Your task to perform on an android device: View the shopping cart on costco.com. Image 0: 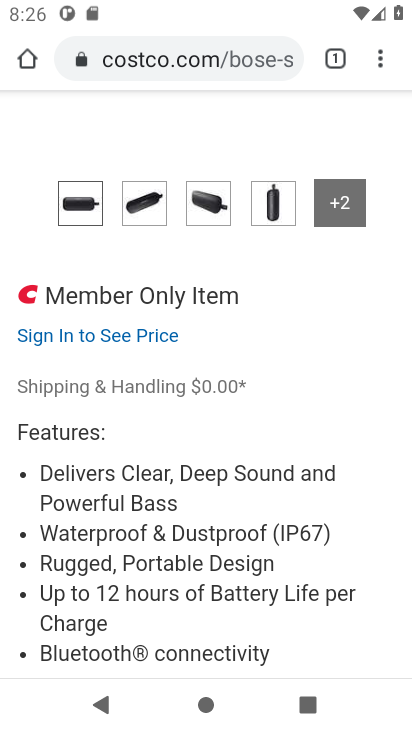
Step 0: press home button
Your task to perform on an android device: View the shopping cart on costco.com. Image 1: 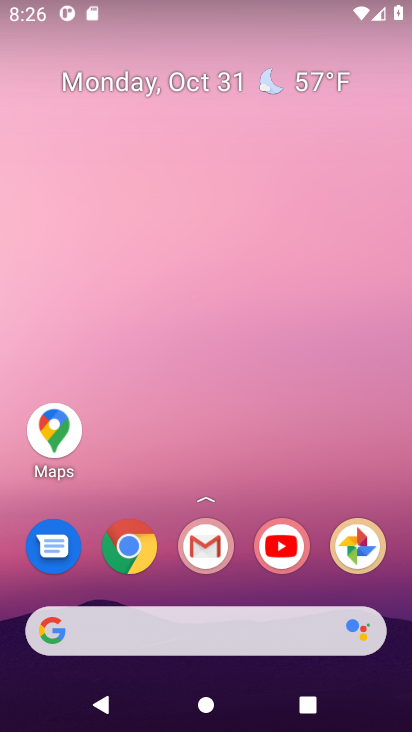
Step 1: click (123, 548)
Your task to perform on an android device: View the shopping cart on costco.com. Image 2: 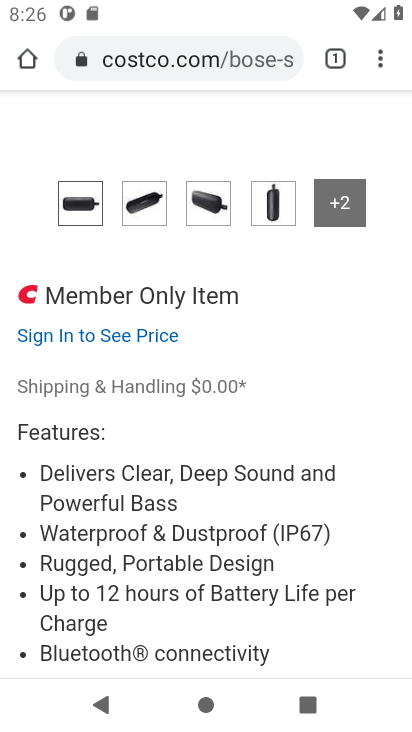
Step 2: click (209, 36)
Your task to perform on an android device: View the shopping cart on costco.com. Image 3: 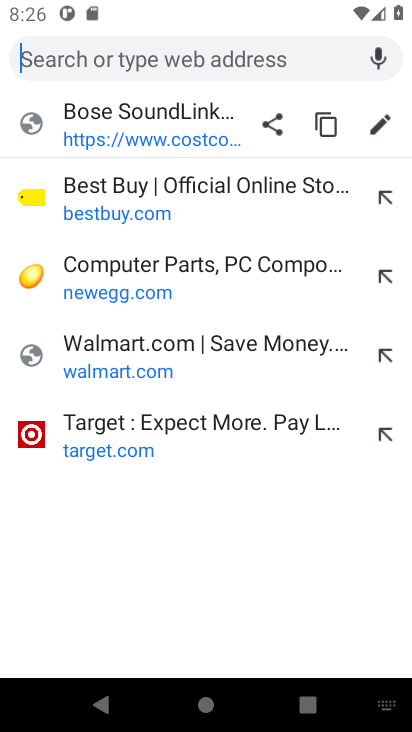
Step 3: type "costco.com"
Your task to perform on an android device: View the shopping cart on costco.com. Image 4: 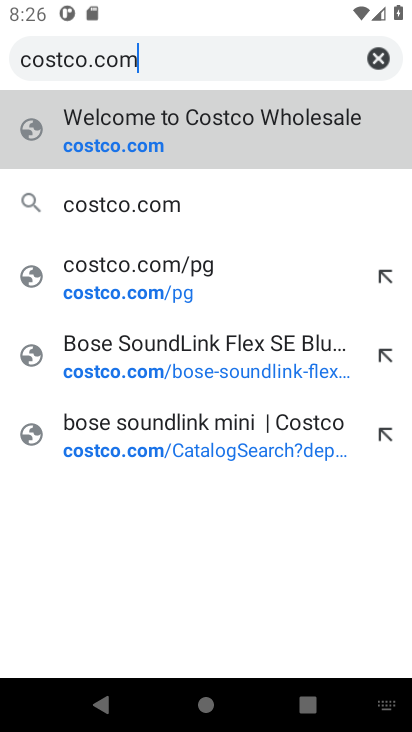
Step 4: click (113, 124)
Your task to perform on an android device: View the shopping cart on costco.com. Image 5: 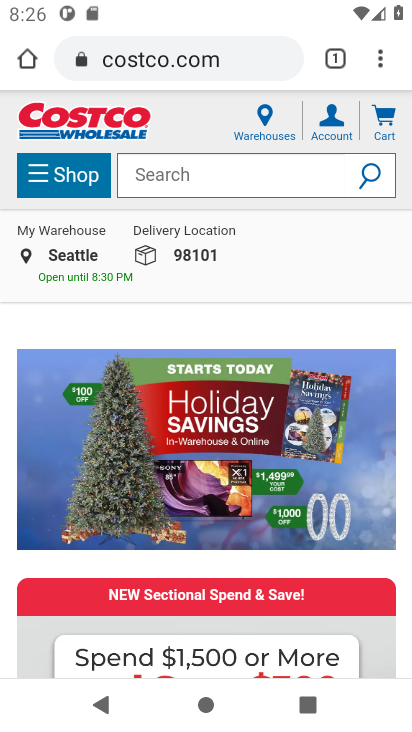
Step 5: click (382, 114)
Your task to perform on an android device: View the shopping cart on costco.com. Image 6: 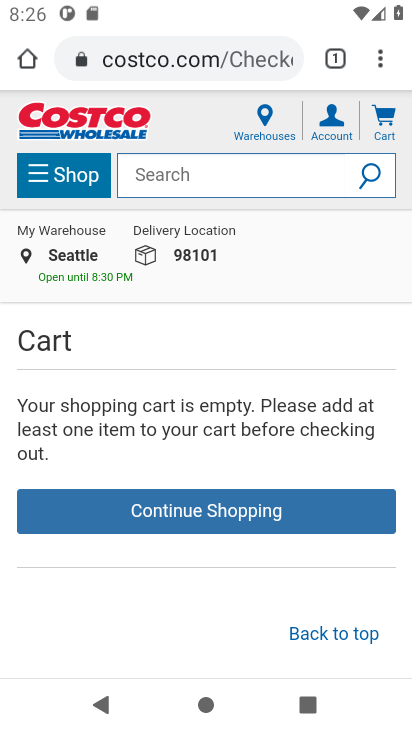
Step 6: click (156, 165)
Your task to perform on an android device: View the shopping cart on costco.com. Image 7: 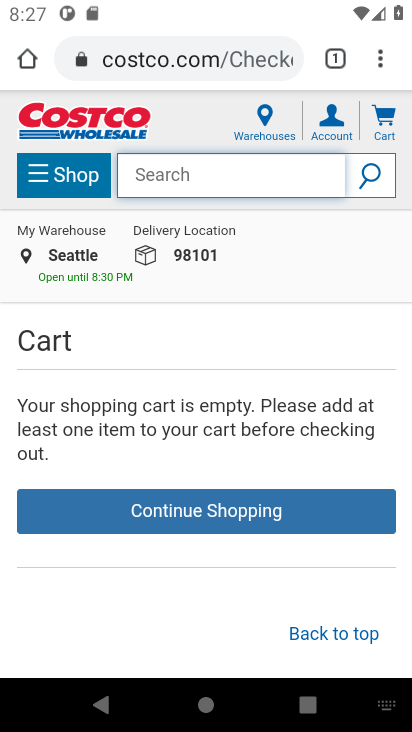
Step 7: task complete